Your task to perform on an android device: turn on javascript in the chrome app Image 0: 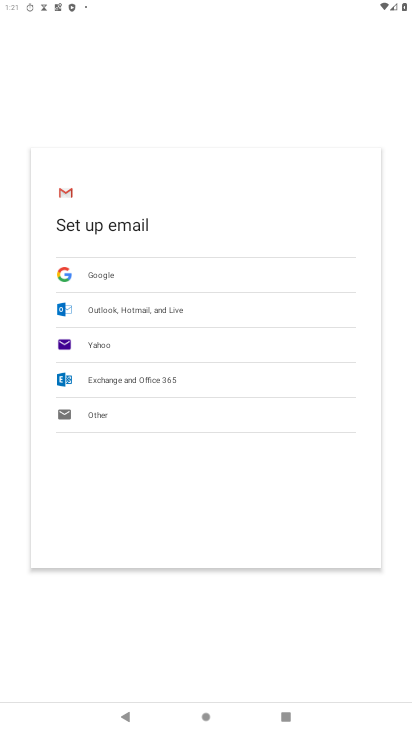
Step 0: press home button
Your task to perform on an android device: turn on javascript in the chrome app Image 1: 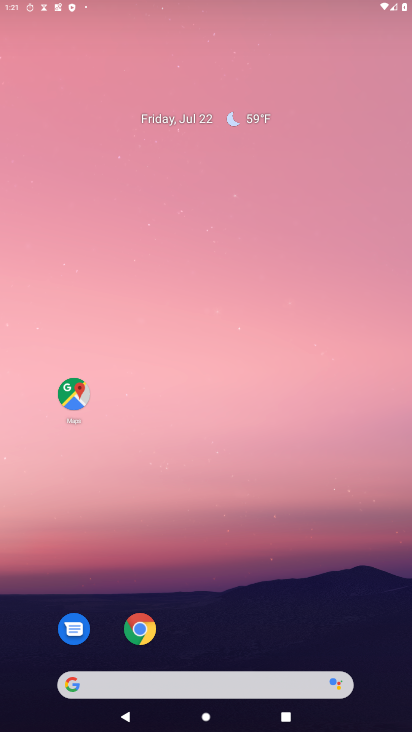
Step 1: drag from (192, 695) to (188, 137)
Your task to perform on an android device: turn on javascript in the chrome app Image 2: 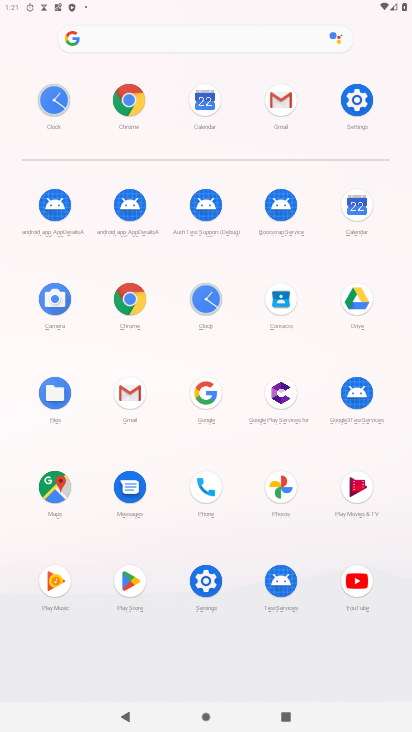
Step 2: click (138, 305)
Your task to perform on an android device: turn on javascript in the chrome app Image 3: 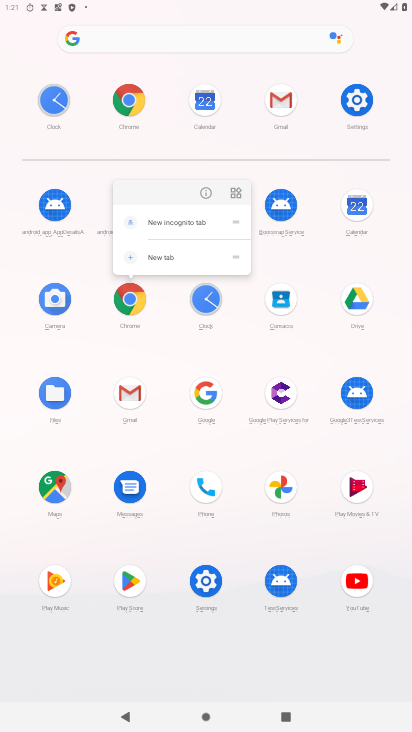
Step 3: click (132, 305)
Your task to perform on an android device: turn on javascript in the chrome app Image 4: 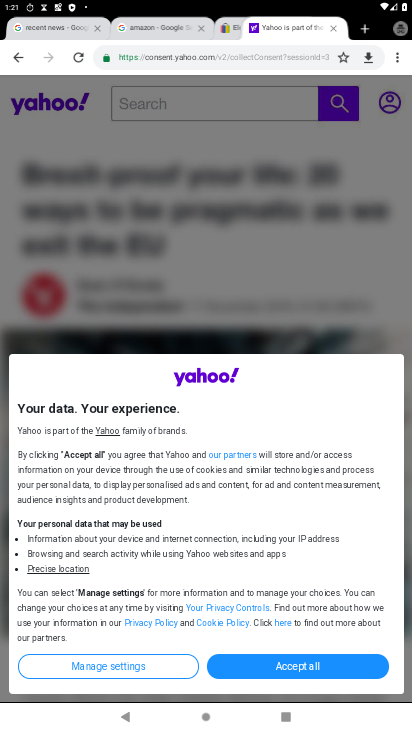
Step 4: drag from (398, 60) to (294, 383)
Your task to perform on an android device: turn on javascript in the chrome app Image 5: 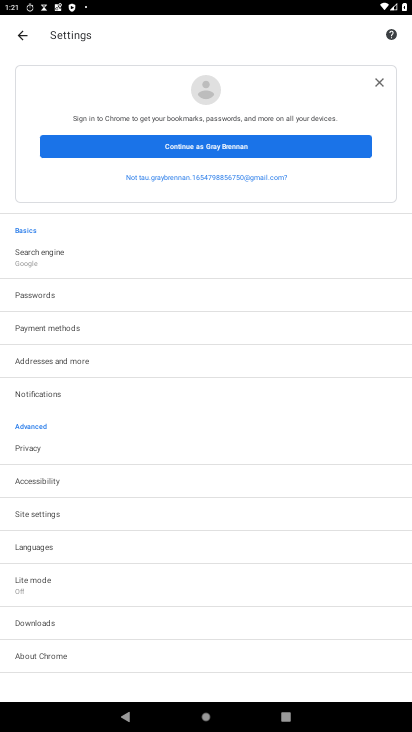
Step 5: click (60, 513)
Your task to perform on an android device: turn on javascript in the chrome app Image 6: 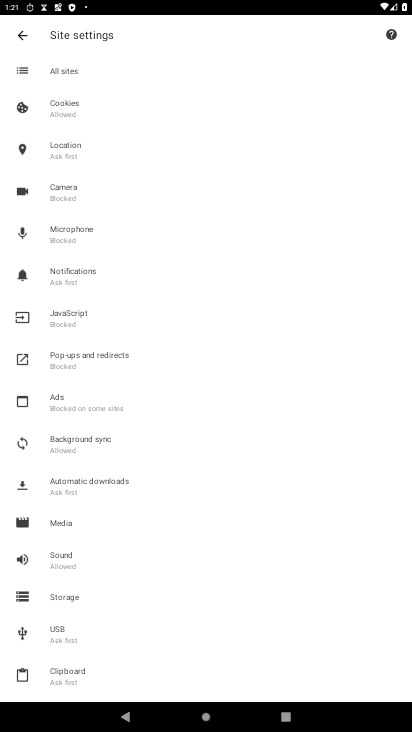
Step 6: click (80, 311)
Your task to perform on an android device: turn on javascript in the chrome app Image 7: 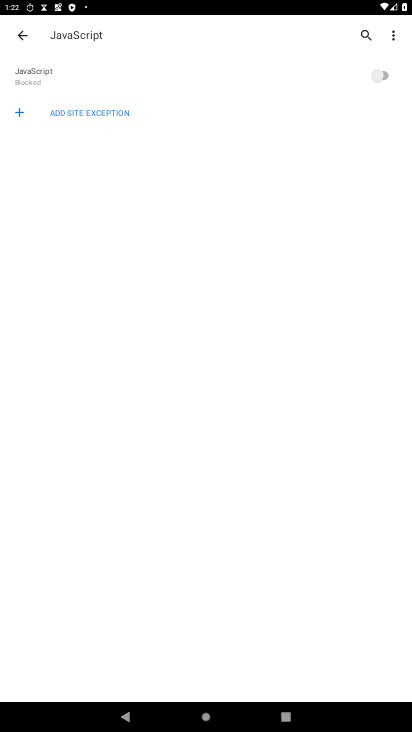
Step 7: click (381, 77)
Your task to perform on an android device: turn on javascript in the chrome app Image 8: 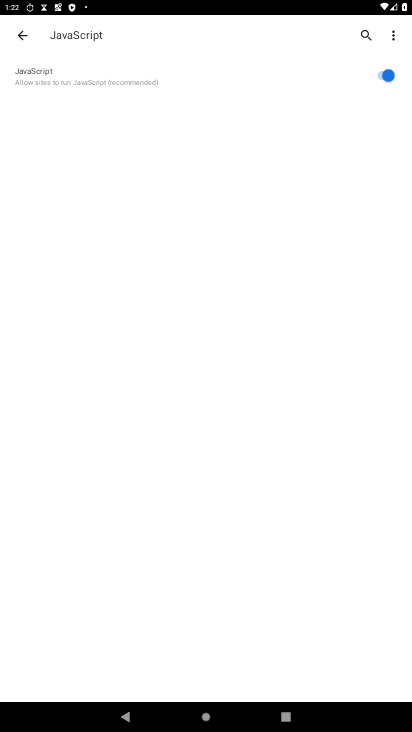
Step 8: task complete